Your task to perform on an android device: uninstall "Google Keep" Image 0: 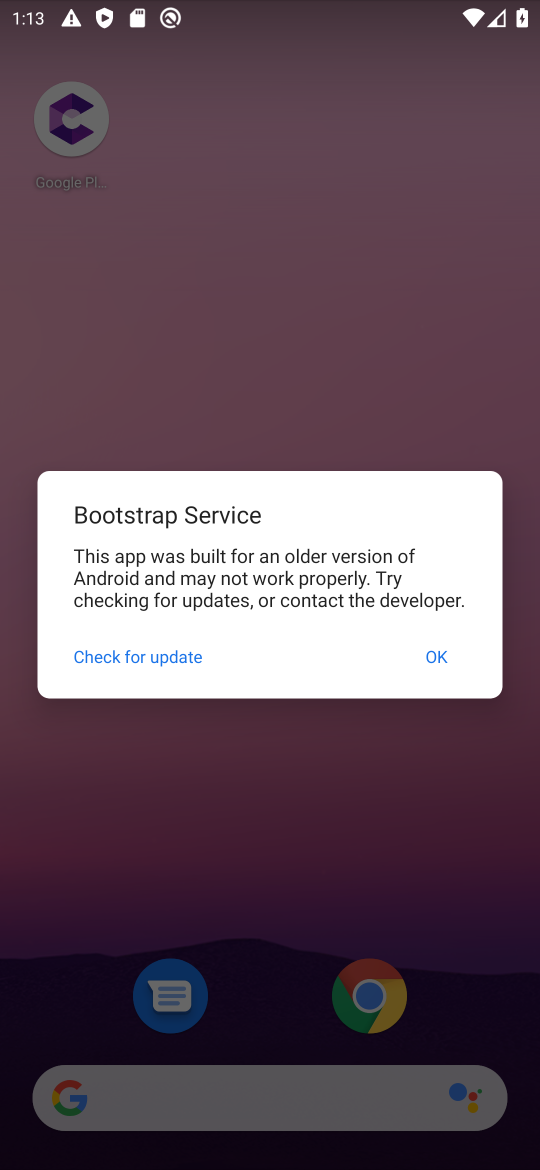
Step 0: click (441, 666)
Your task to perform on an android device: uninstall "Google Keep" Image 1: 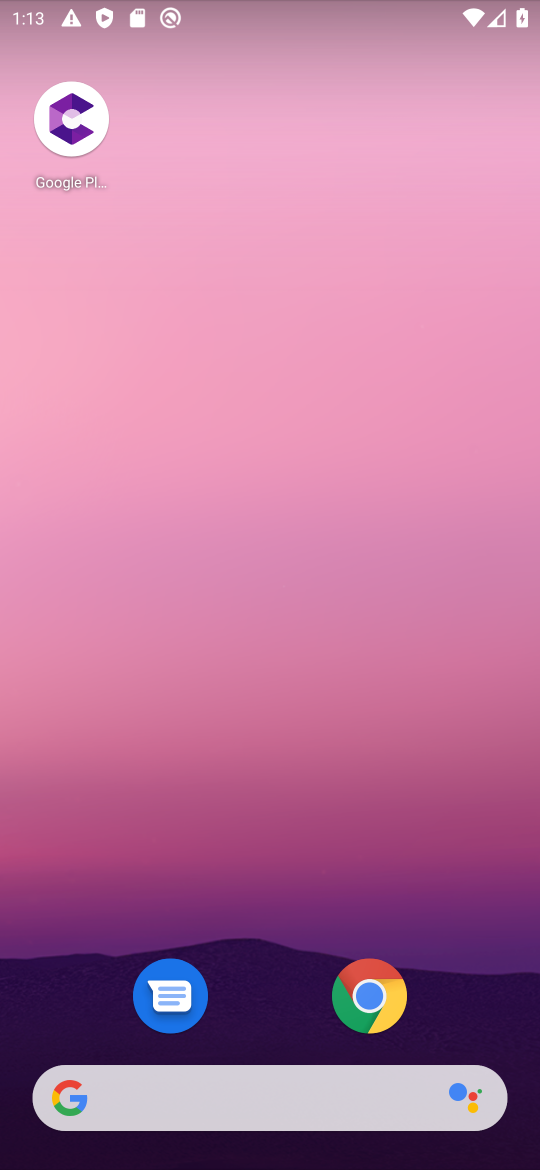
Step 1: drag from (356, 524) to (372, 0)
Your task to perform on an android device: uninstall "Google Keep" Image 2: 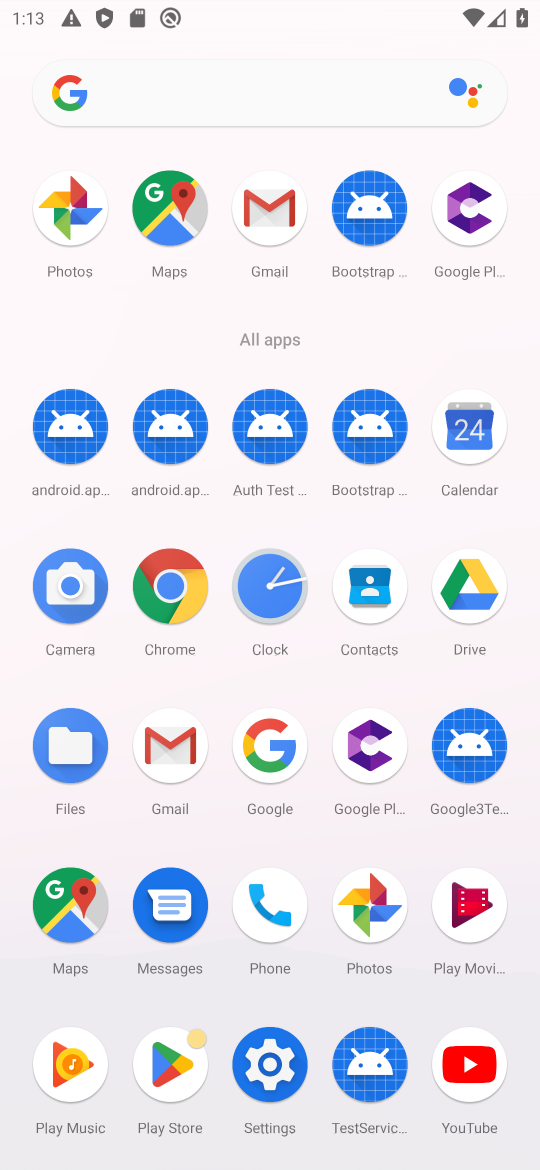
Step 2: drag from (273, 910) to (484, 155)
Your task to perform on an android device: uninstall "Google Keep" Image 3: 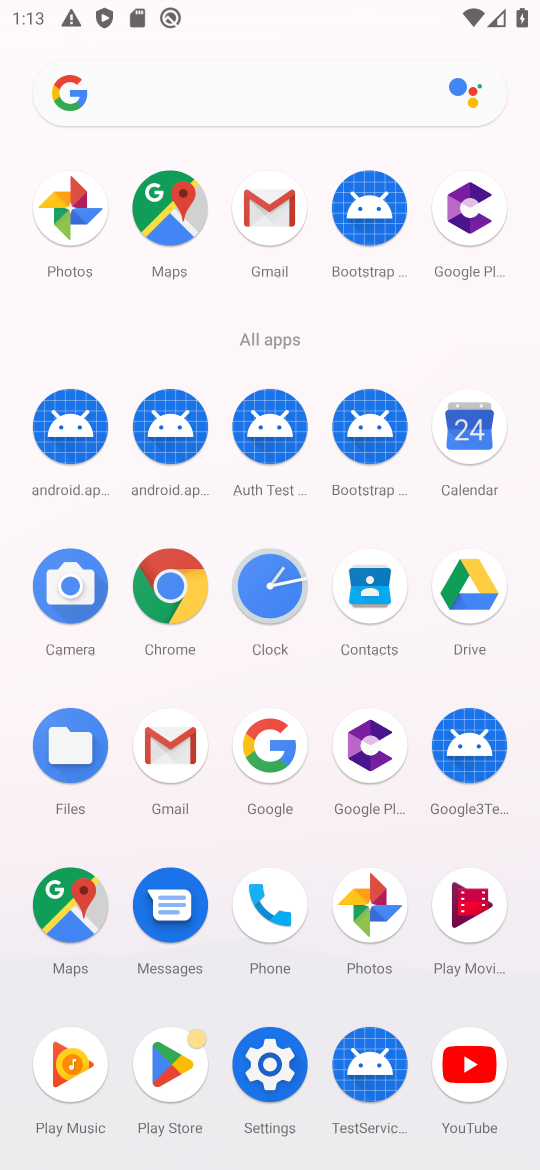
Step 3: click (170, 1039)
Your task to perform on an android device: uninstall "Google Keep" Image 4: 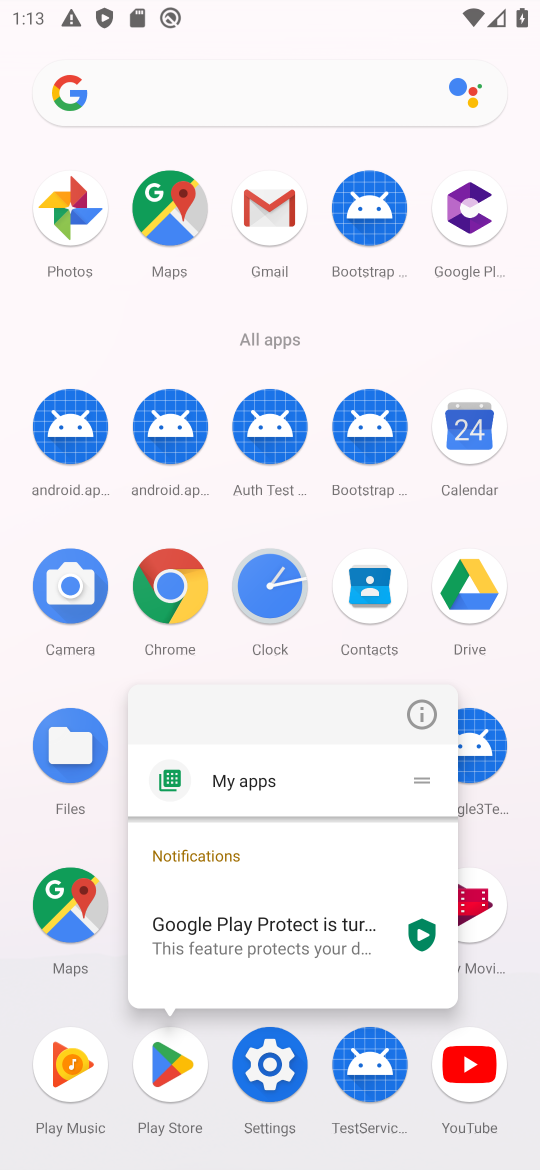
Step 4: click (167, 1067)
Your task to perform on an android device: uninstall "Google Keep" Image 5: 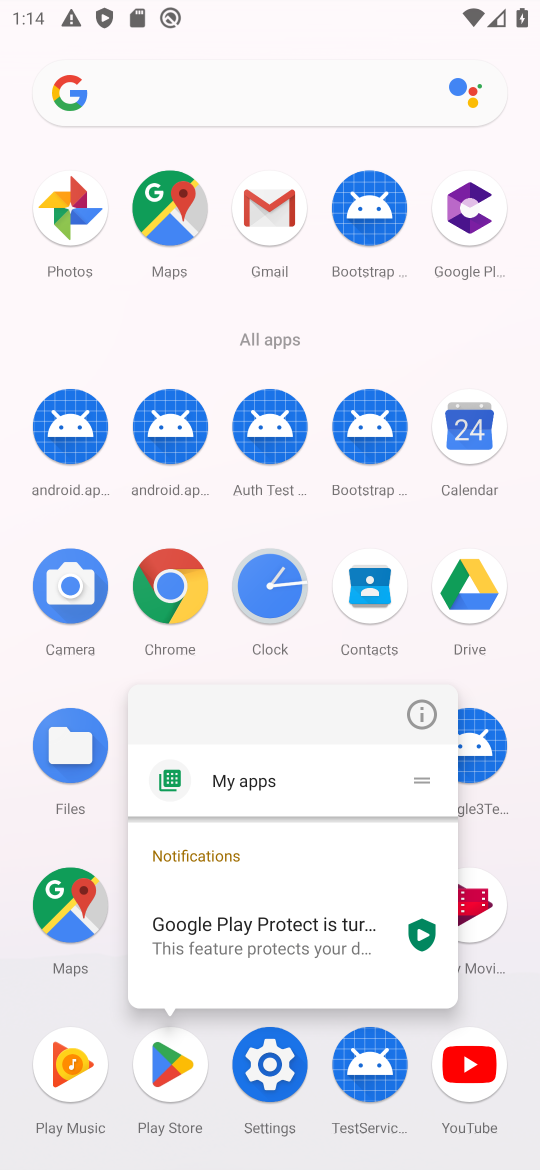
Step 5: click (173, 1076)
Your task to perform on an android device: uninstall "Google Keep" Image 6: 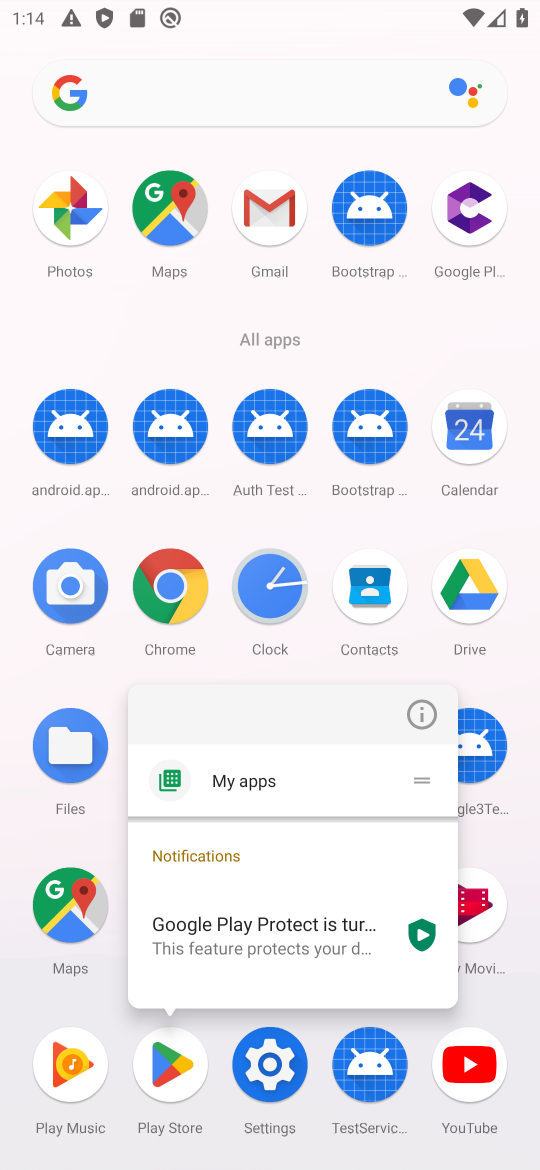
Step 6: click (160, 1082)
Your task to perform on an android device: uninstall "Google Keep" Image 7: 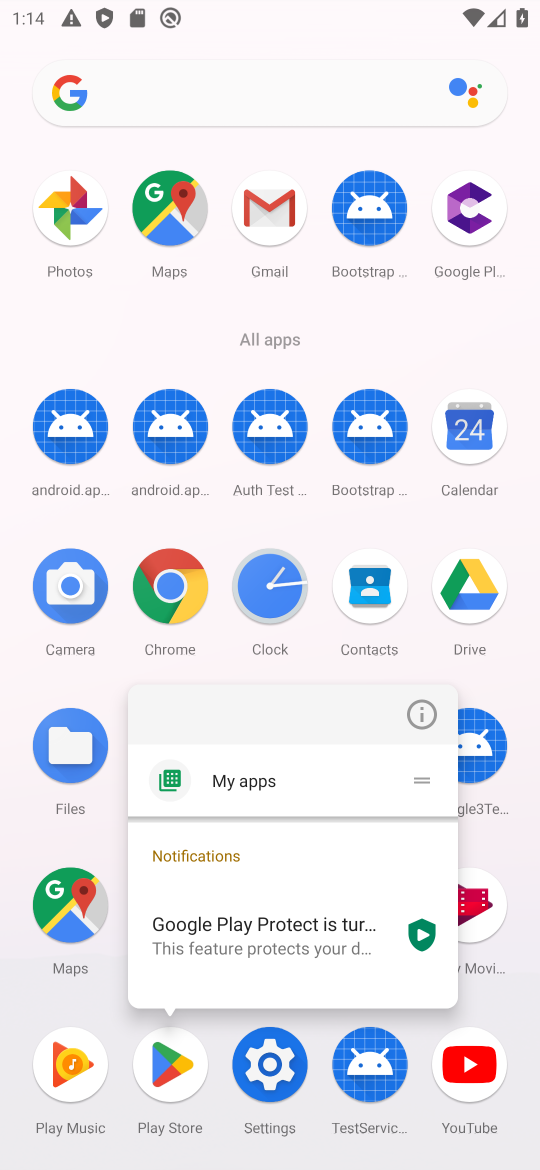
Step 7: click (174, 1072)
Your task to perform on an android device: uninstall "Google Keep" Image 8: 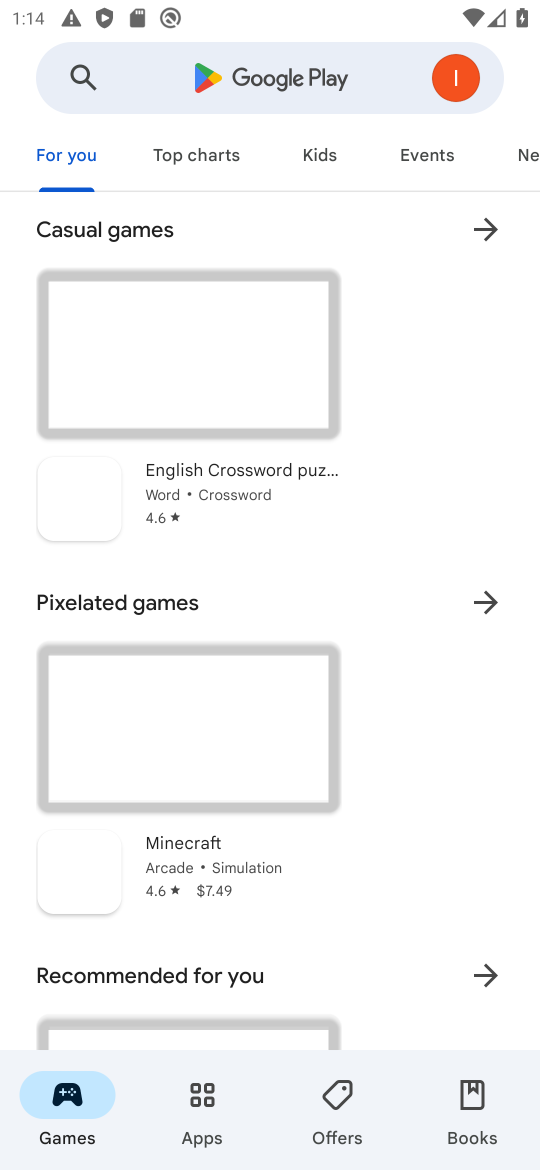
Step 8: click (328, 82)
Your task to perform on an android device: uninstall "Google Keep" Image 9: 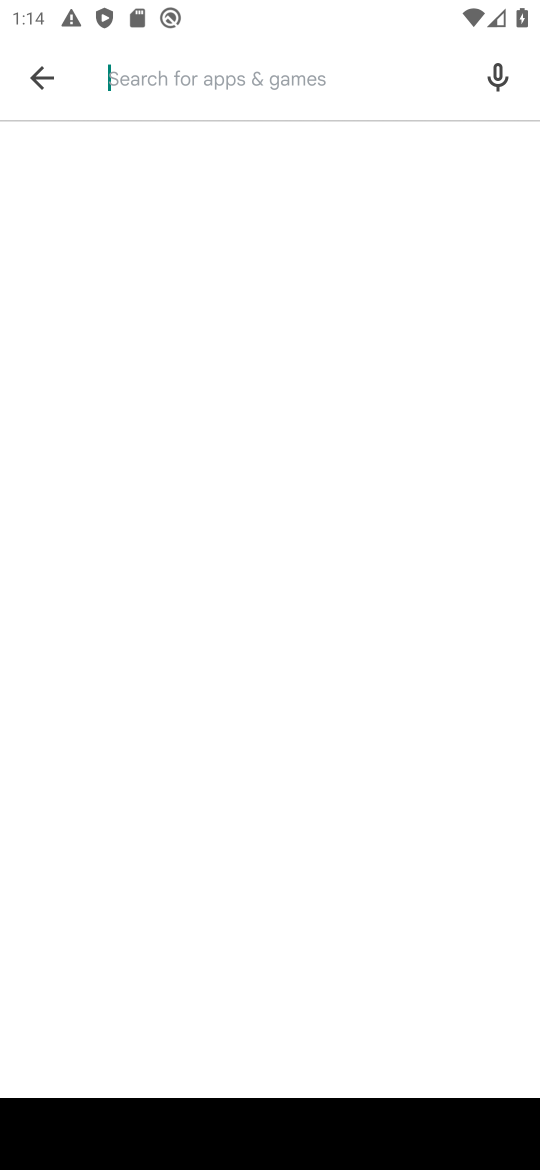
Step 9: type "Google Keep"
Your task to perform on an android device: uninstall "Google Keep" Image 10: 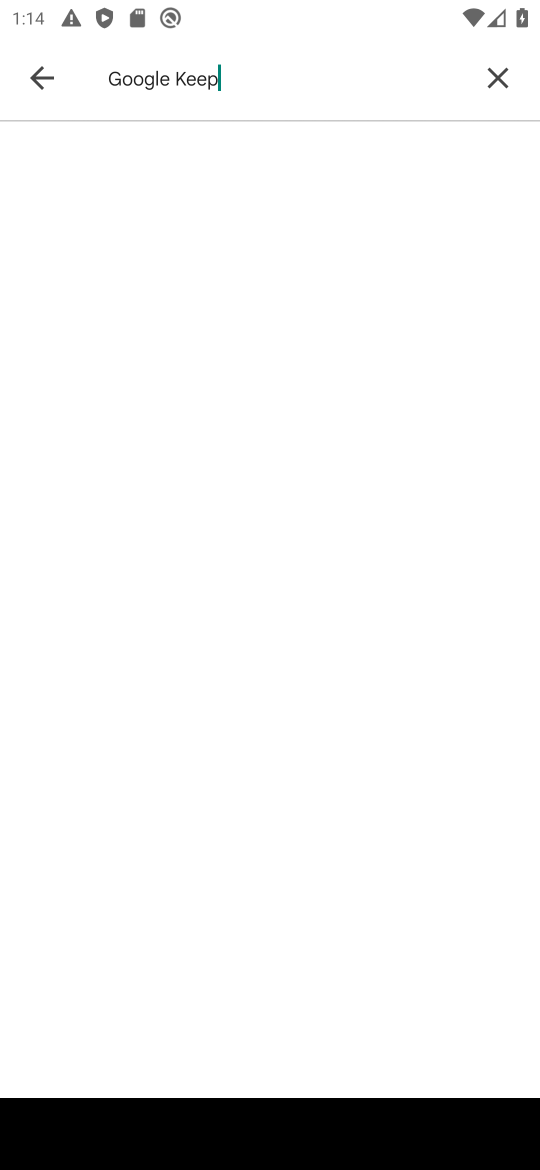
Step 10: press enter
Your task to perform on an android device: uninstall "Google Keep" Image 11: 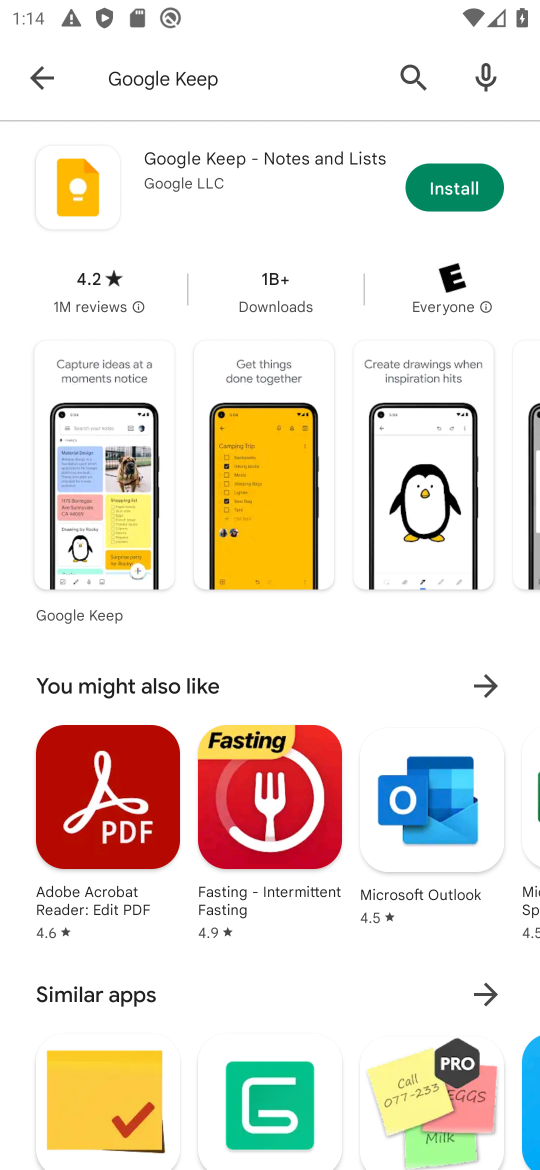
Step 11: task complete